Your task to perform on an android device: open app "Duolingo: language lessons" (install if not already installed) Image 0: 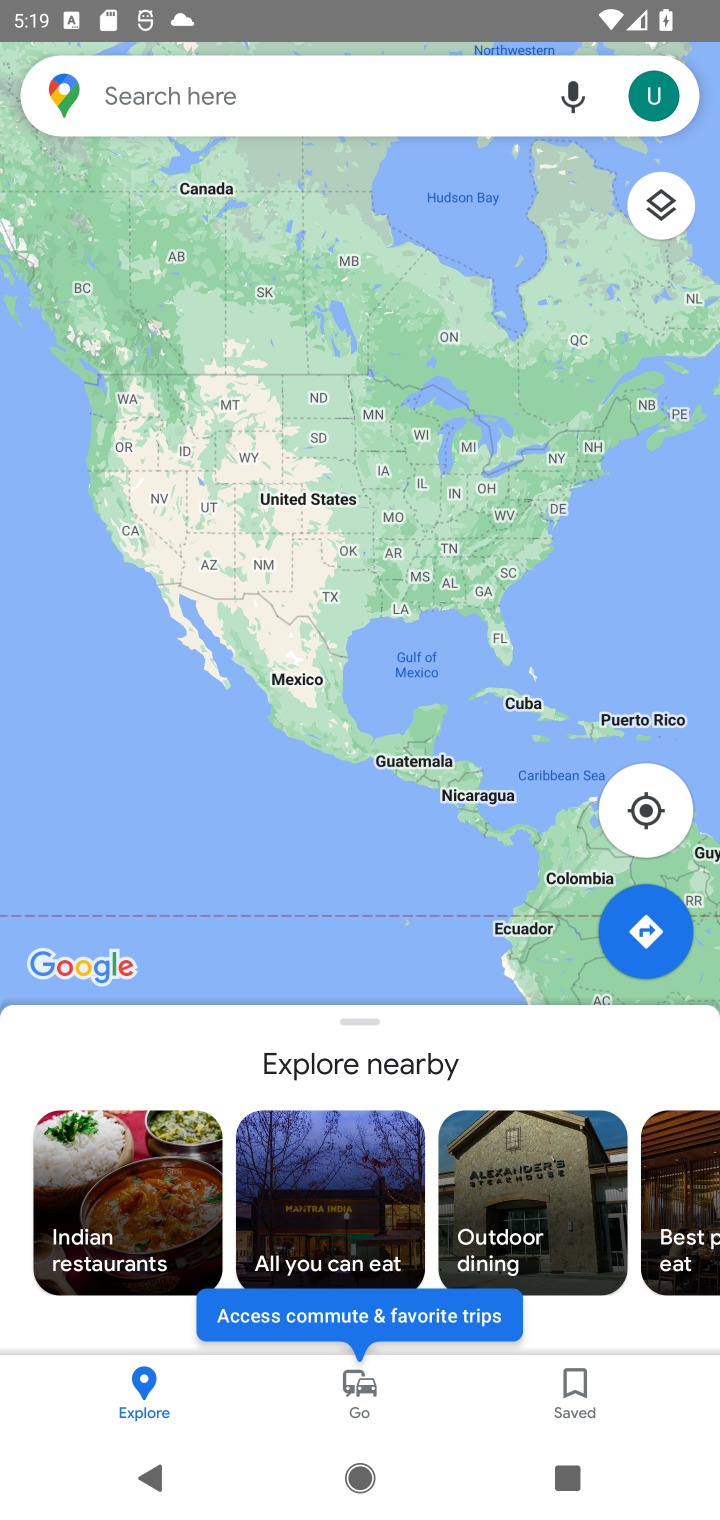
Step 0: press home button
Your task to perform on an android device: open app "Duolingo: language lessons" (install if not already installed) Image 1: 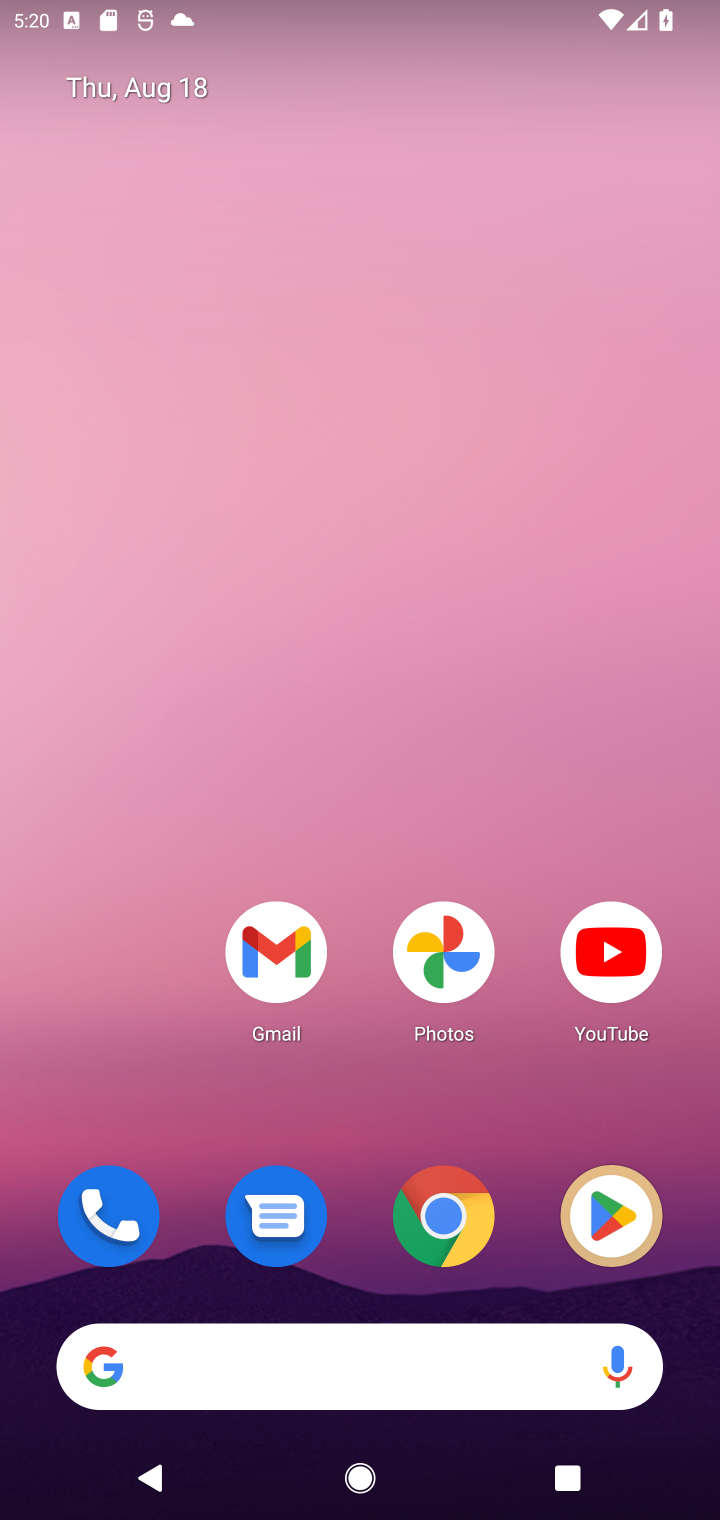
Step 1: click (604, 1184)
Your task to perform on an android device: open app "Duolingo: language lessons" (install if not already installed) Image 2: 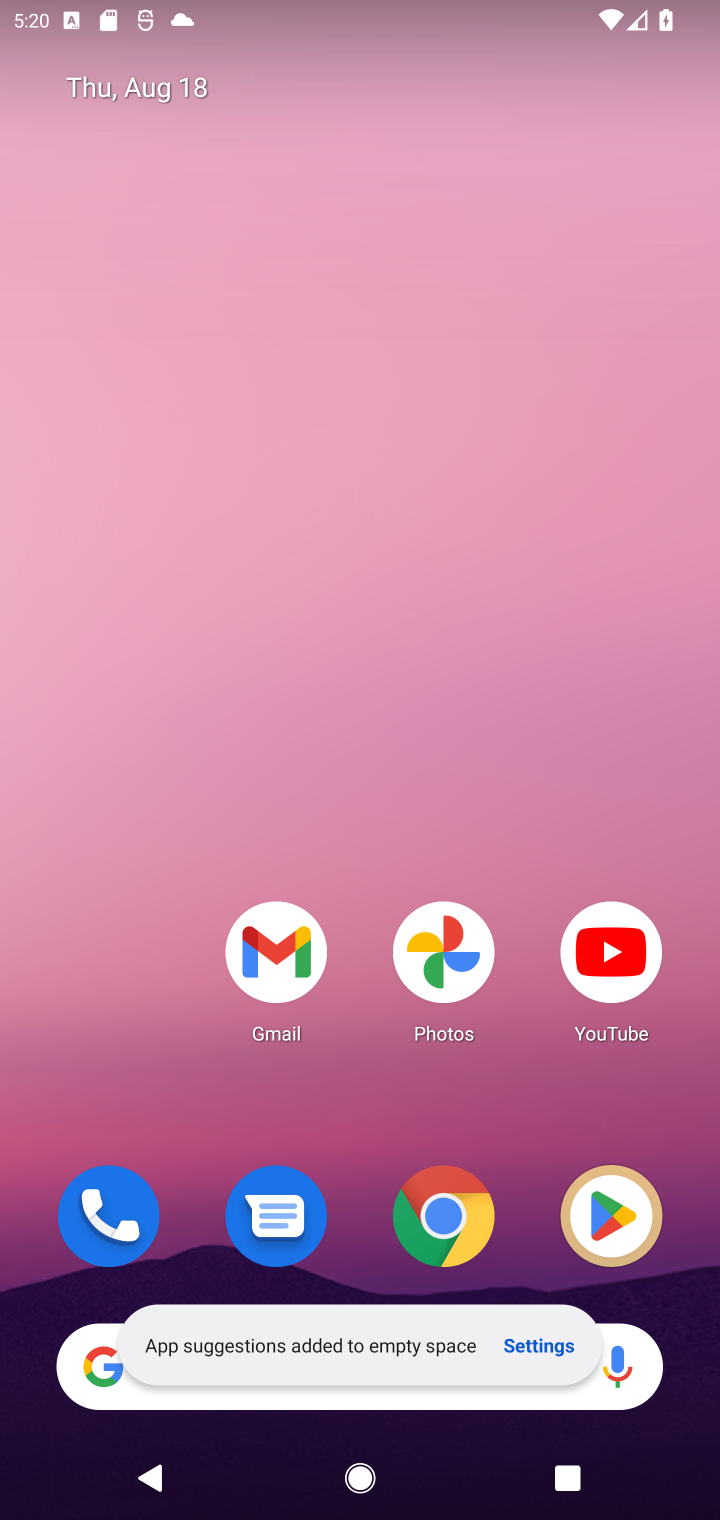
Step 2: click (621, 1212)
Your task to perform on an android device: open app "Duolingo: language lessons" (install if not already installed) Image 3: 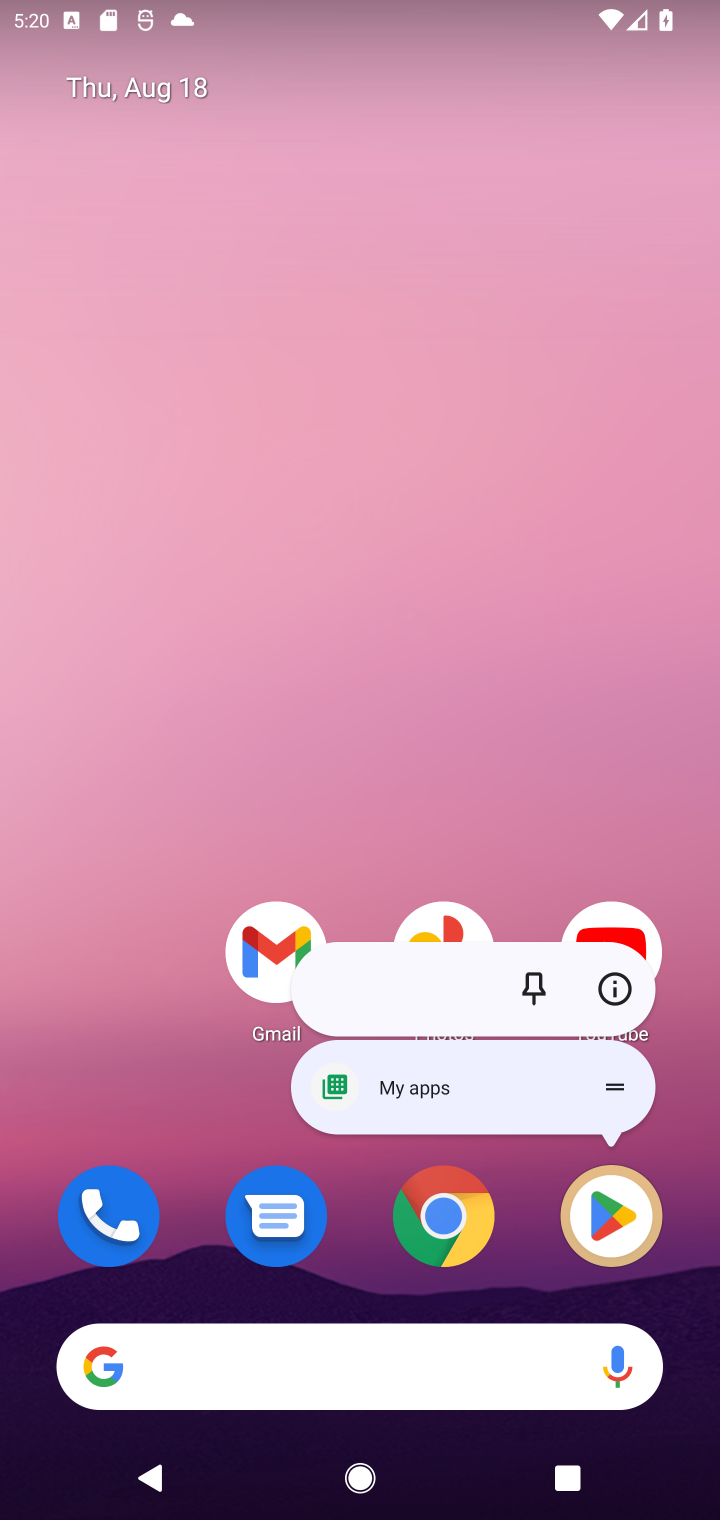
Step 3: click (621, 1212)
Your task to perform on an android device: open app "Duolingo: language lessons" (install if not already installed) Image 4: 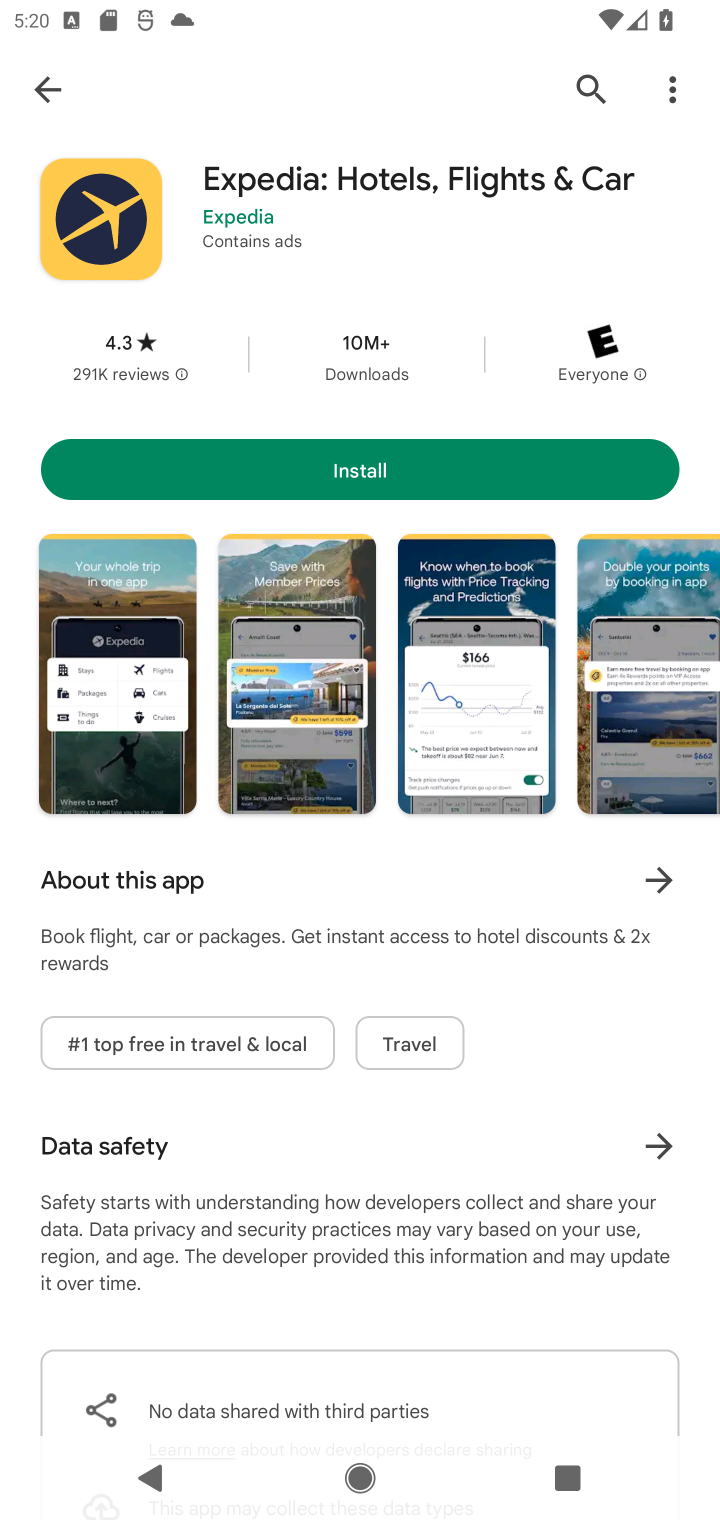
Step 4: click (621, 1212)
Your task to perform on an android device: open app "Duolingo: language lessons" (install if not already installed) Image 5: 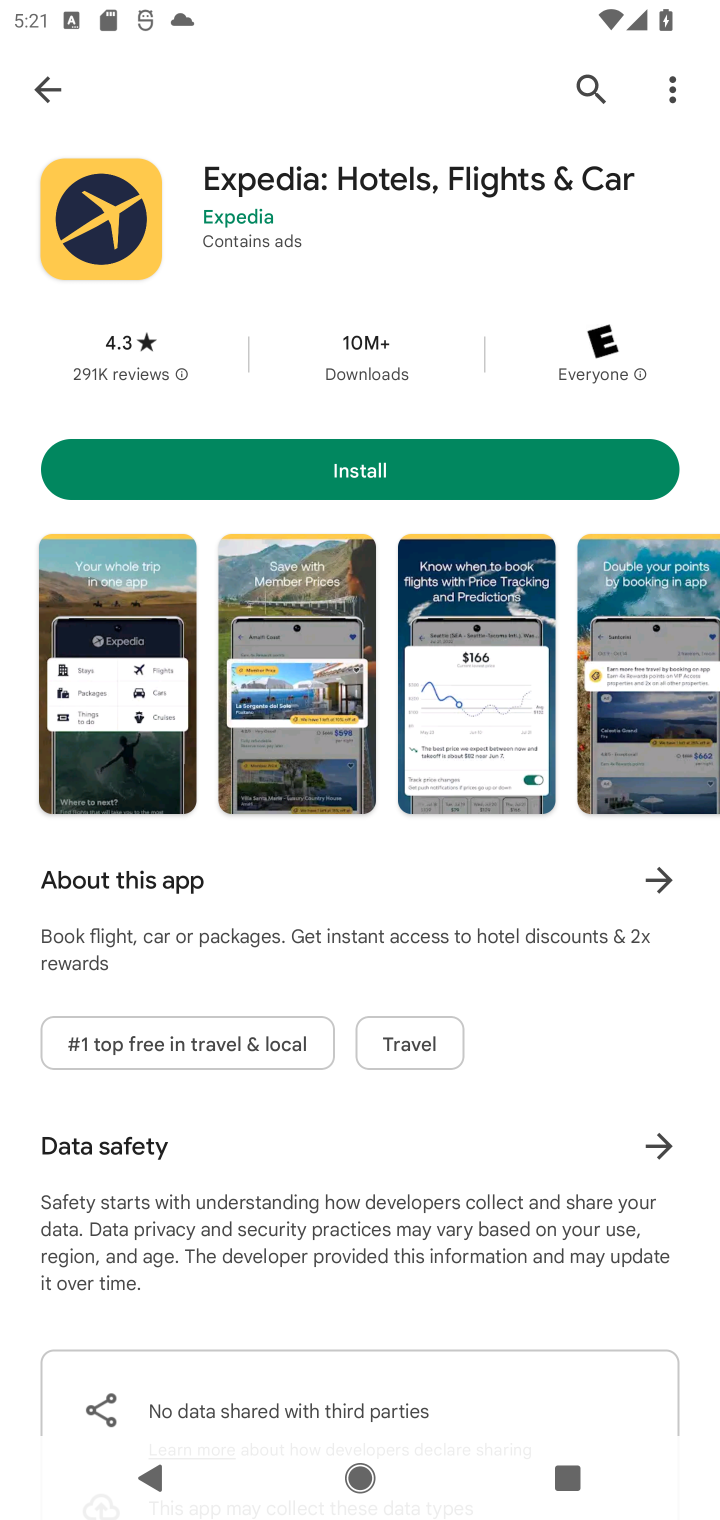
Step 5: click (591, 82)
Your task to perform on an android device: open app "Duolingo: language lessons" (install if not already installed) Image 6: 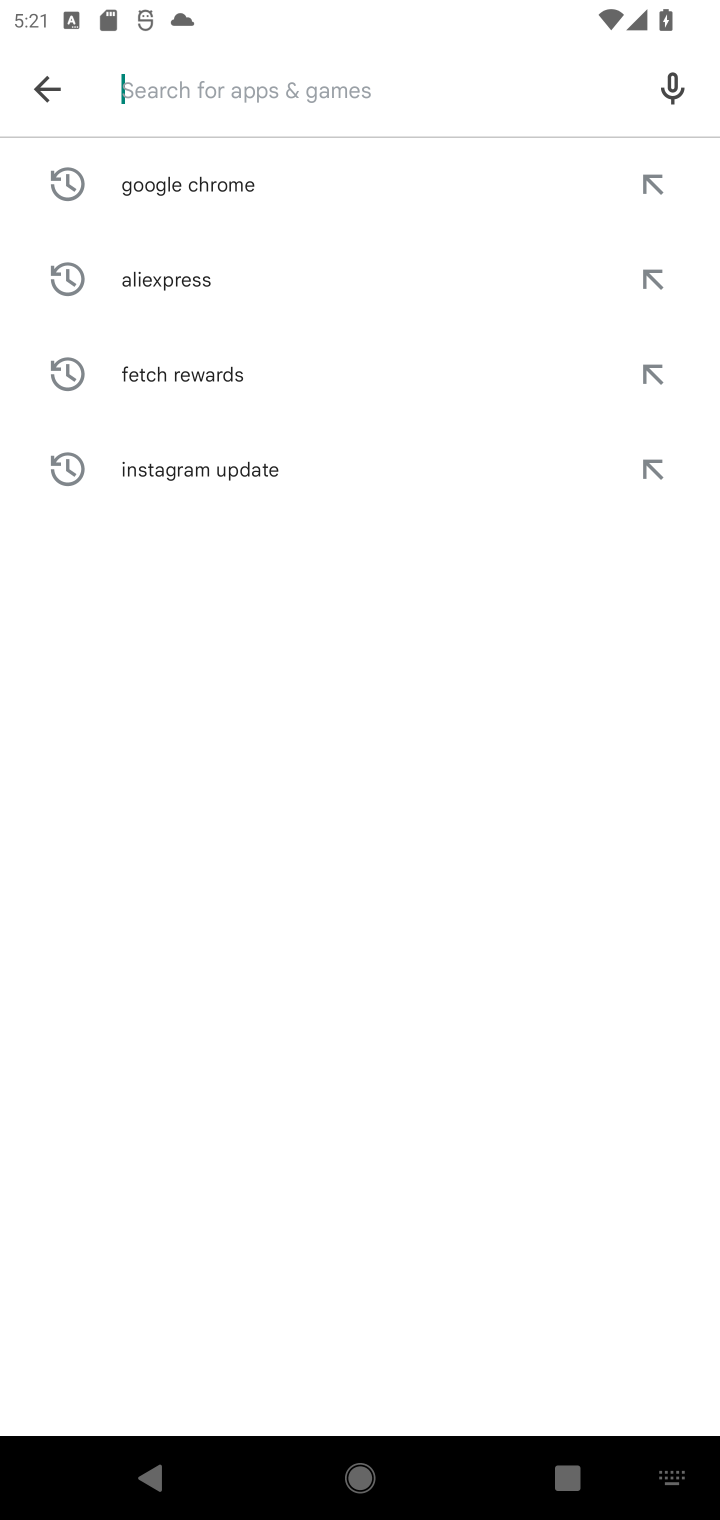
Step 6: type "Duolingo: language lessons"
Your task to perform on an android device: open app "Duolingo: language lessons" (install if not already installed) Image 7: 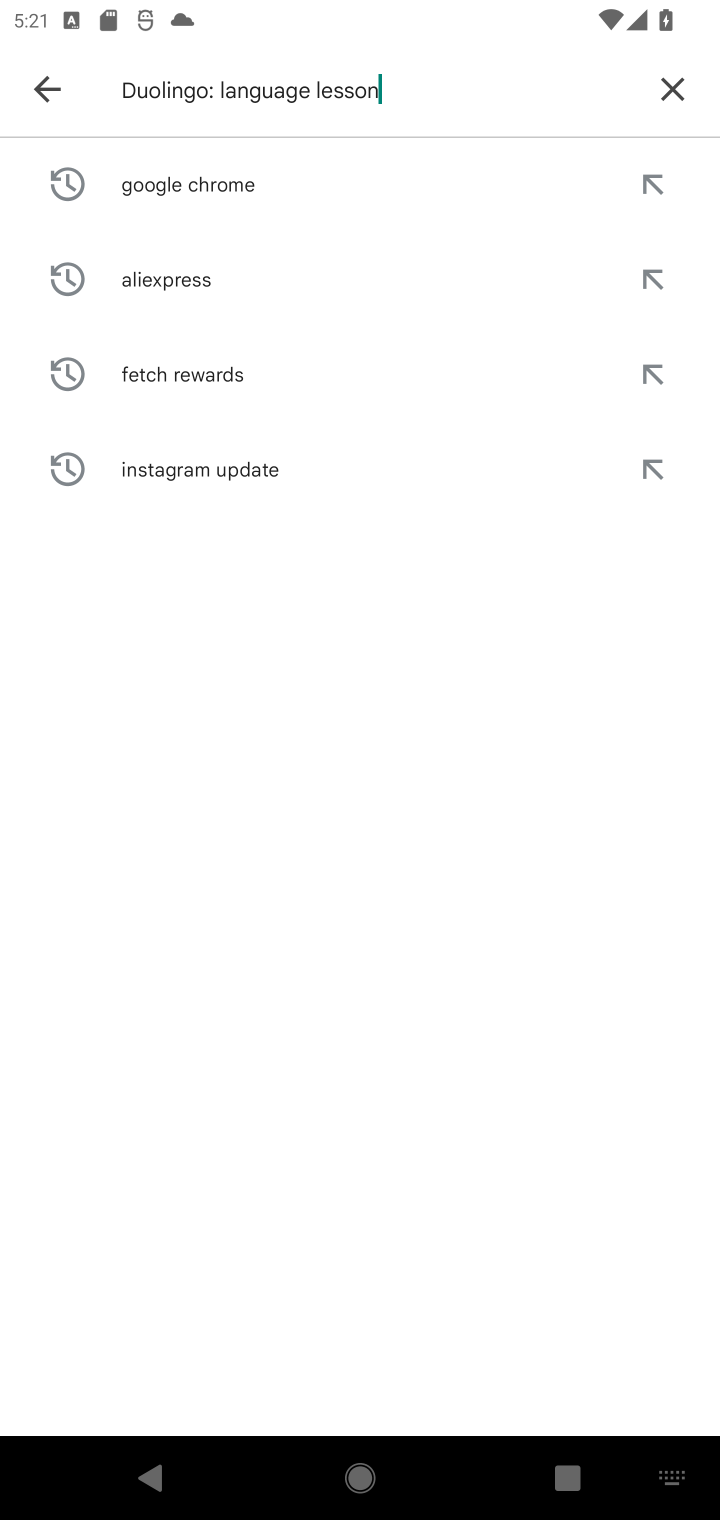
Step 7: type ""
Your task to perform on an android device: open app "Duolingo: language lessons" (install if not already installed) Image 8: 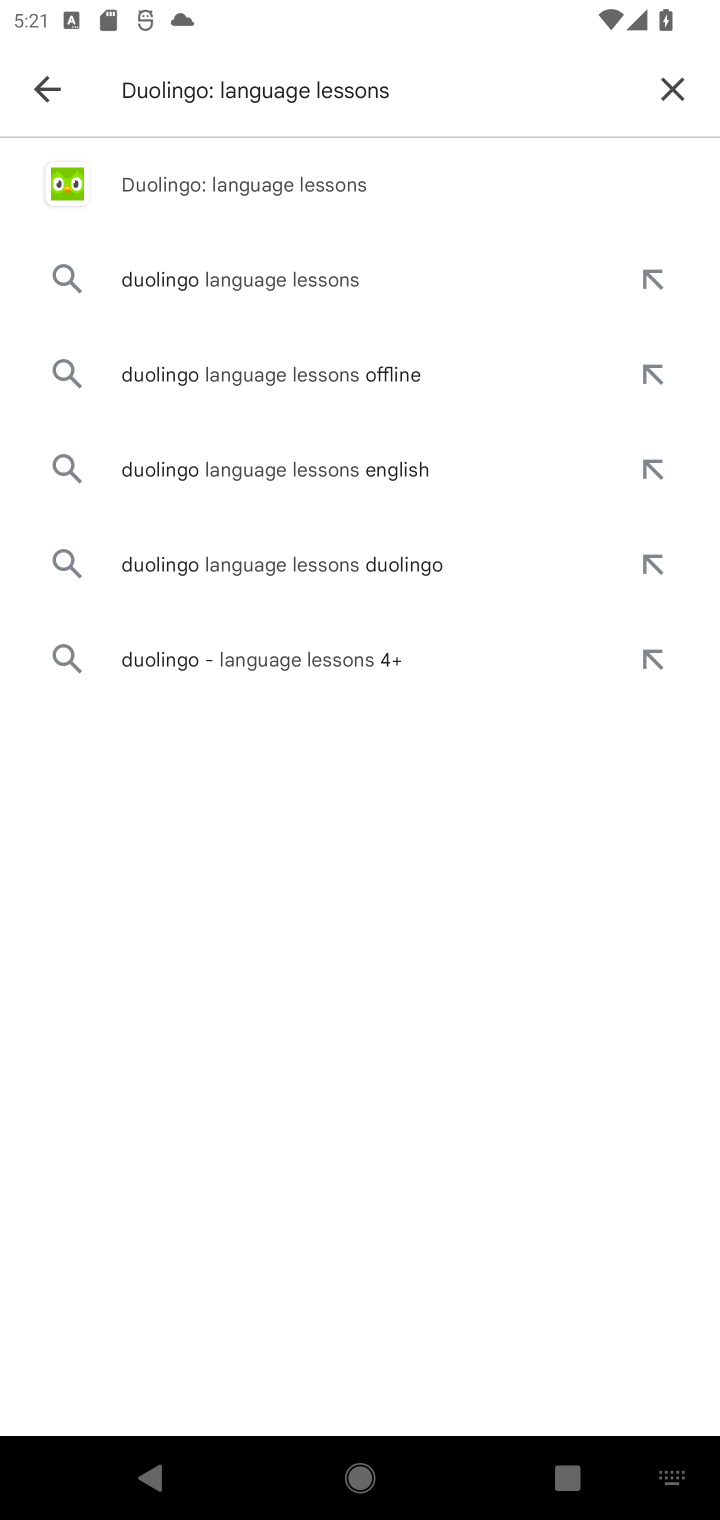
Step 8: click (258, 165)
Your task to perform on an android device: open app "Duolingo: language lessons" (install if not already installed) Image 9: 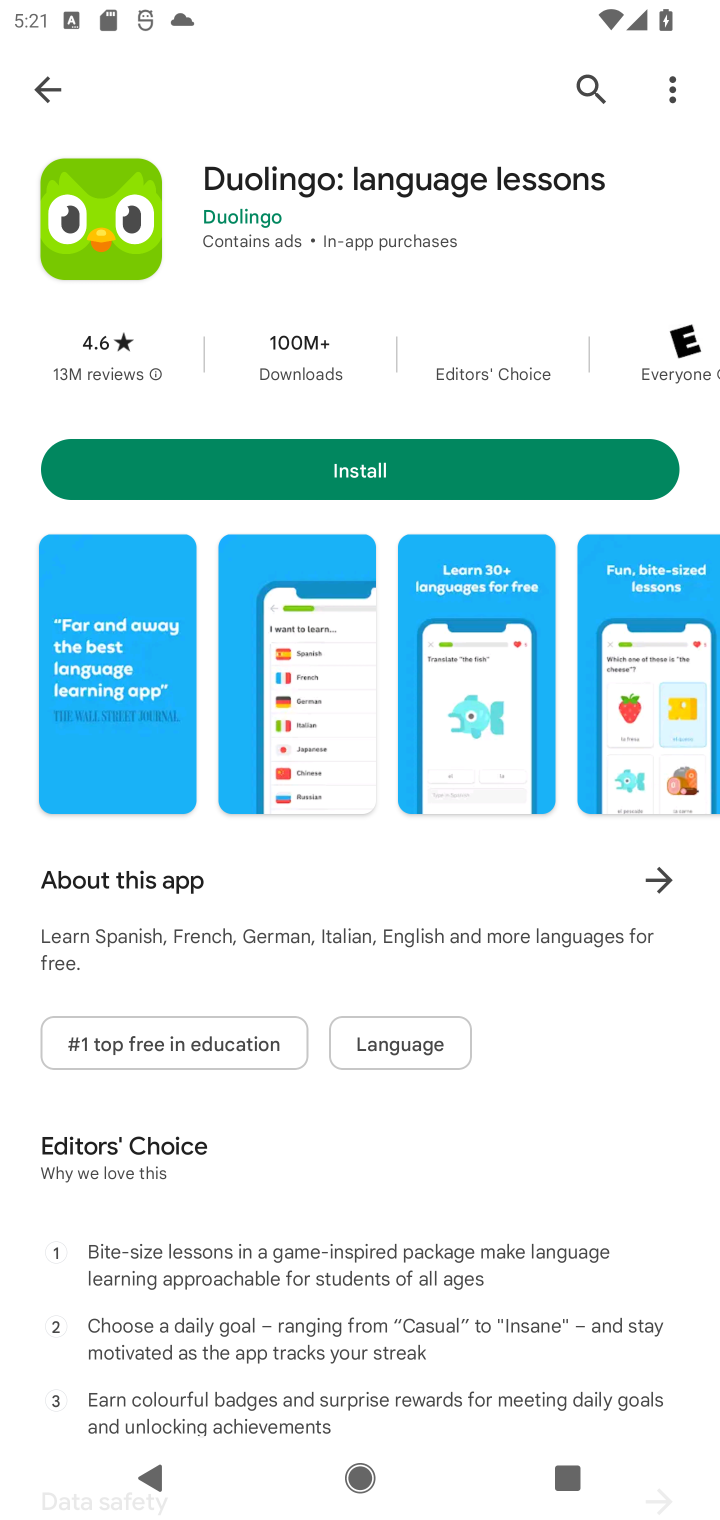
Step 9: click (545, 454)
Your task to perform on an android device: open app "Duolingo: language lessons" (install if not already installed) Image 10: 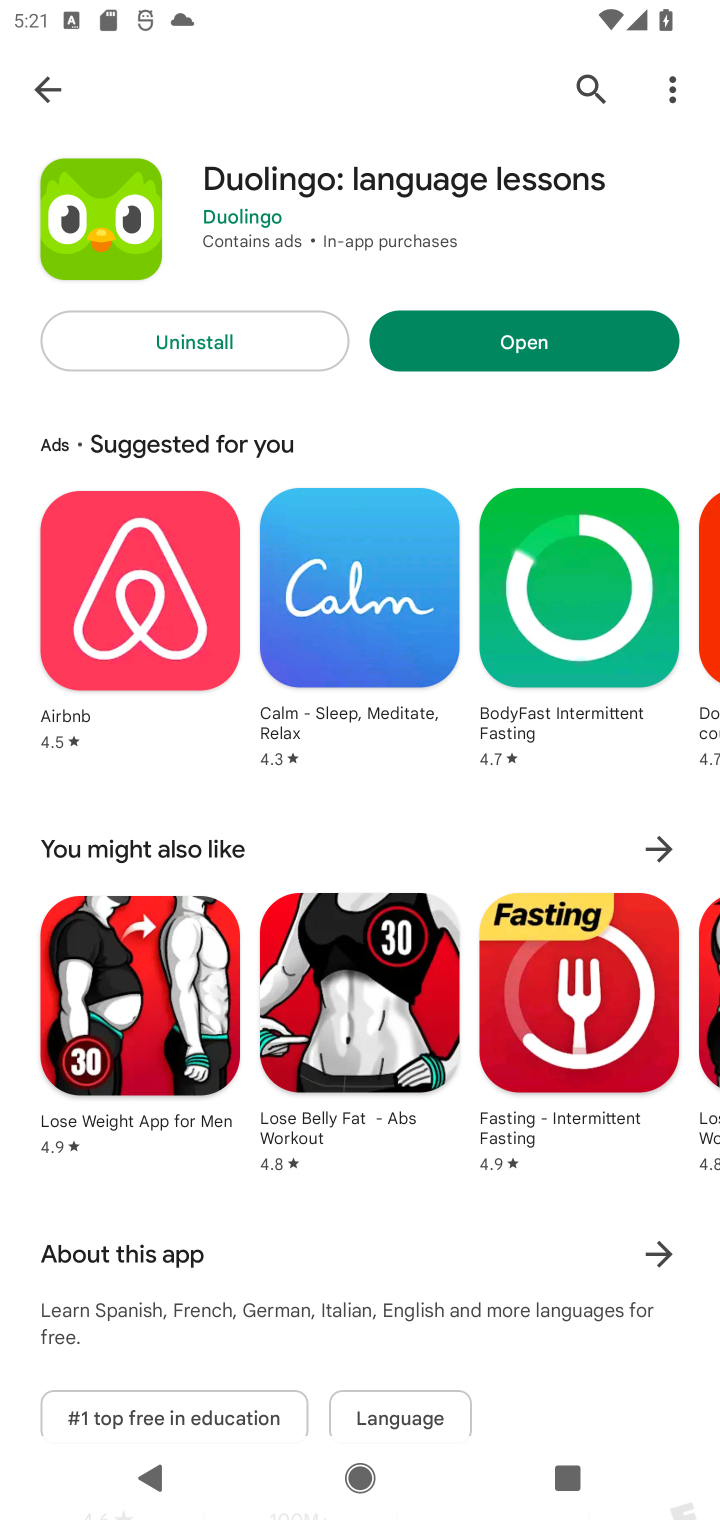
Step 10: click (525, 354)
Your task to perform on an android device: open app "Duolingo: language lessons" (install if not already installed) Image 11: 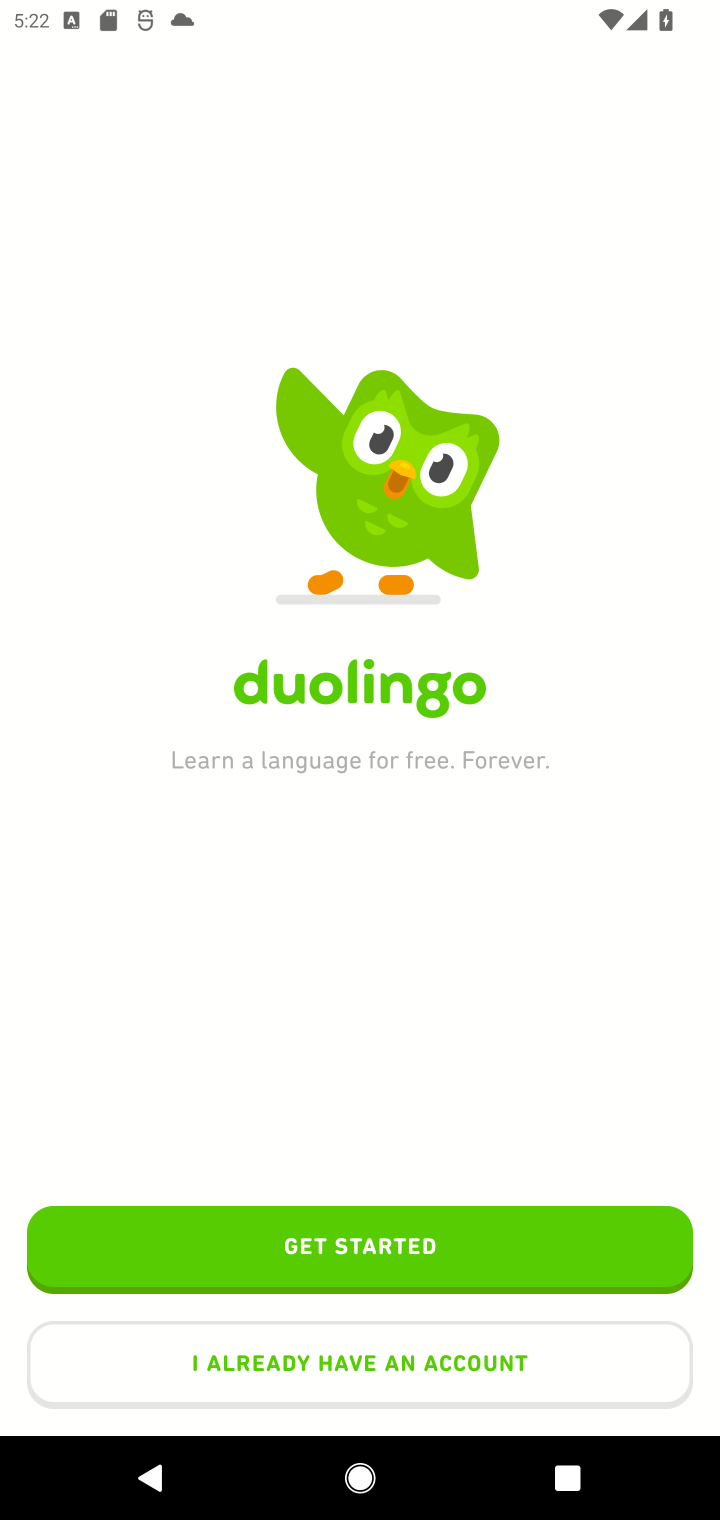
Step 11: task complete